Your task to perform on an android device: turn on the 12-hour format for clock Image 0: 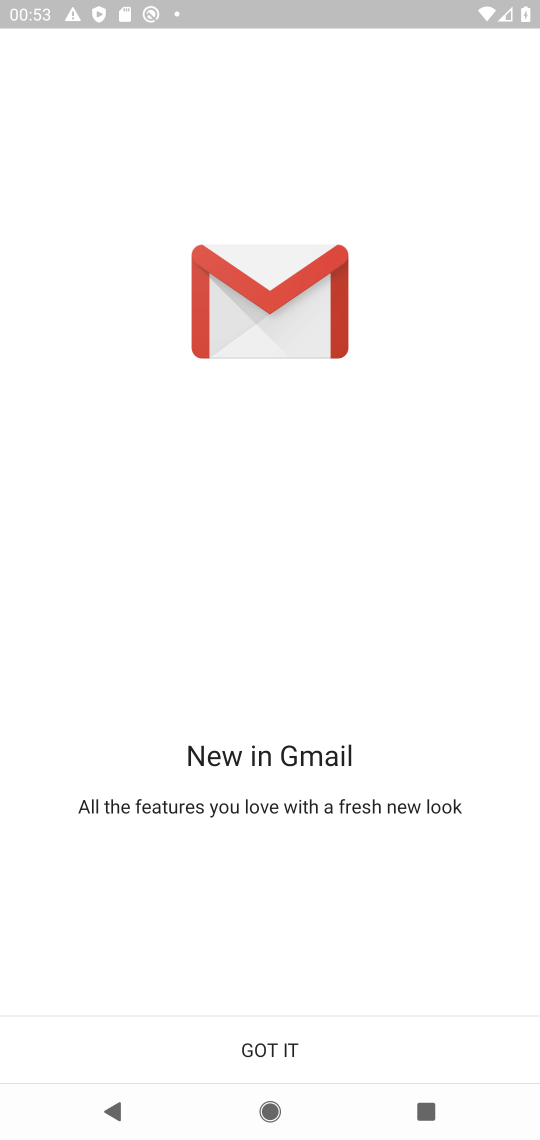
Step 0: press home button
Your task to perform on an android device: turn on the 12-hour format for clock Image 1: 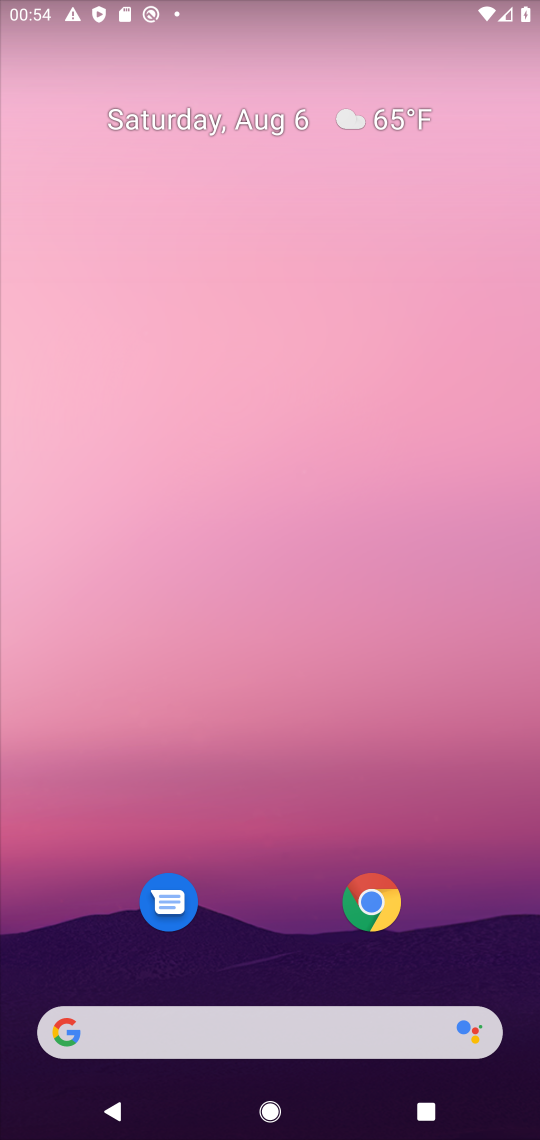
Step 1: drag from (284, 149) to (284, 95)
Your task to perform on an android device: turn on the 12-hour format for clock Image 2: 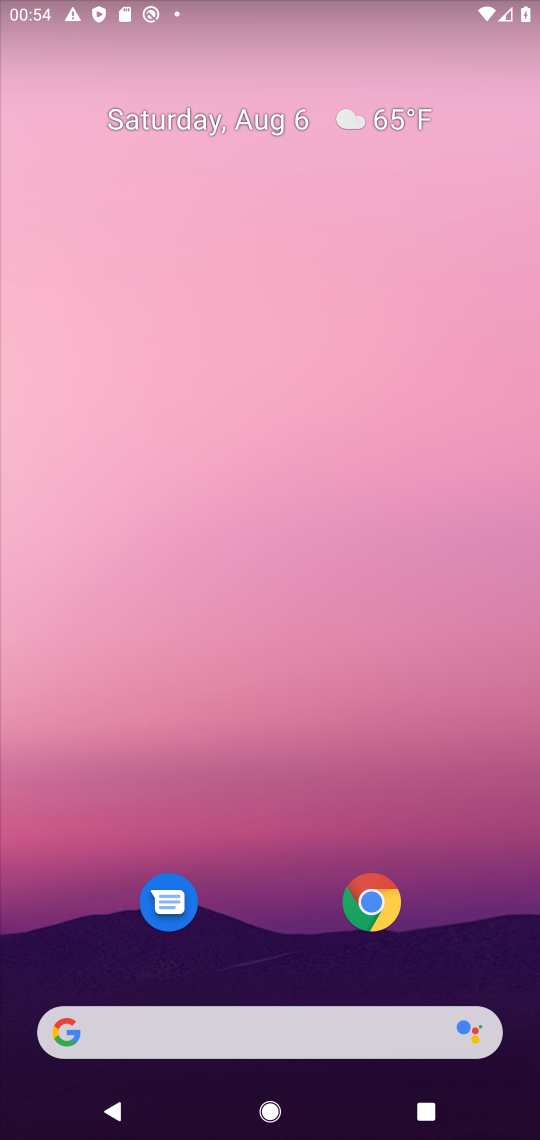
Step 2: drag from (302, 532) to (335, 171)
Your task to perform on an android device: turn on the 12-hour format for clock Image 3: 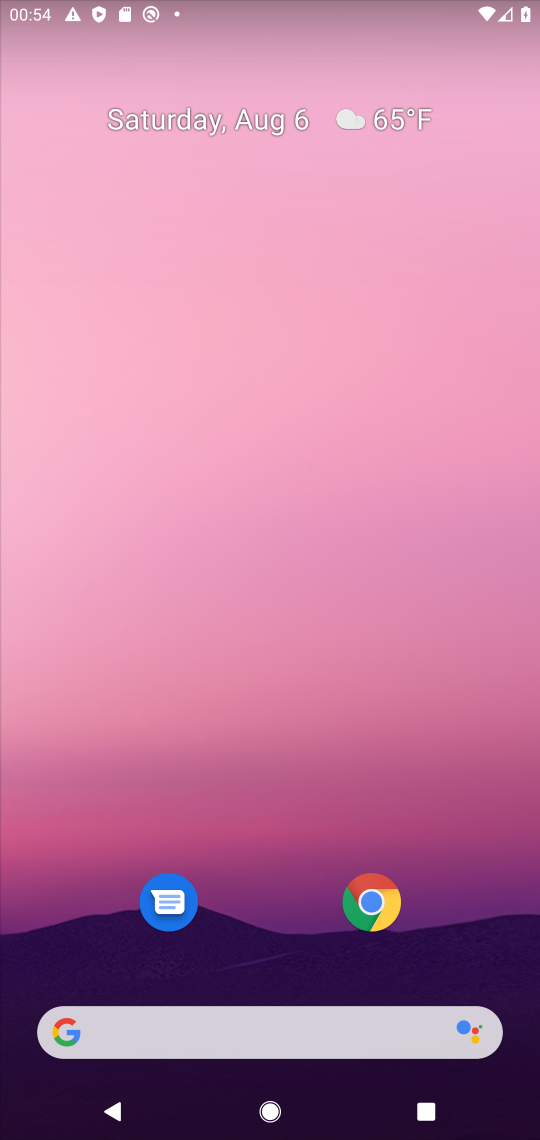
Step 3: drag from (275, 895) to (277, 187)
Your task to perform on an android device: turn on the 12-hour format for clock Image 4: 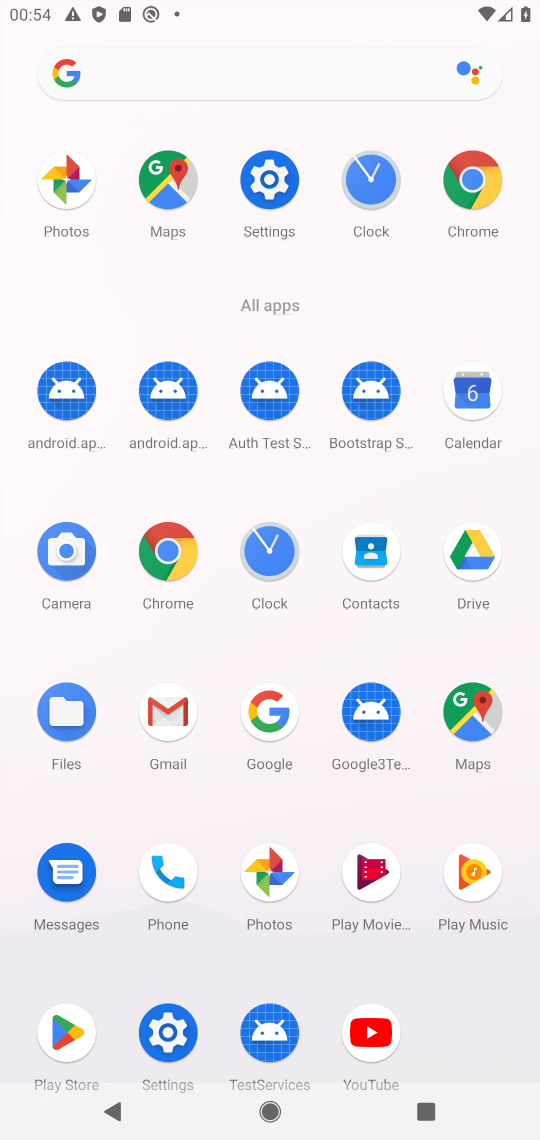
Step 4: click (375, 177)
Your task to perform on an android device: turn on the 12-hour format for clock Image 5: 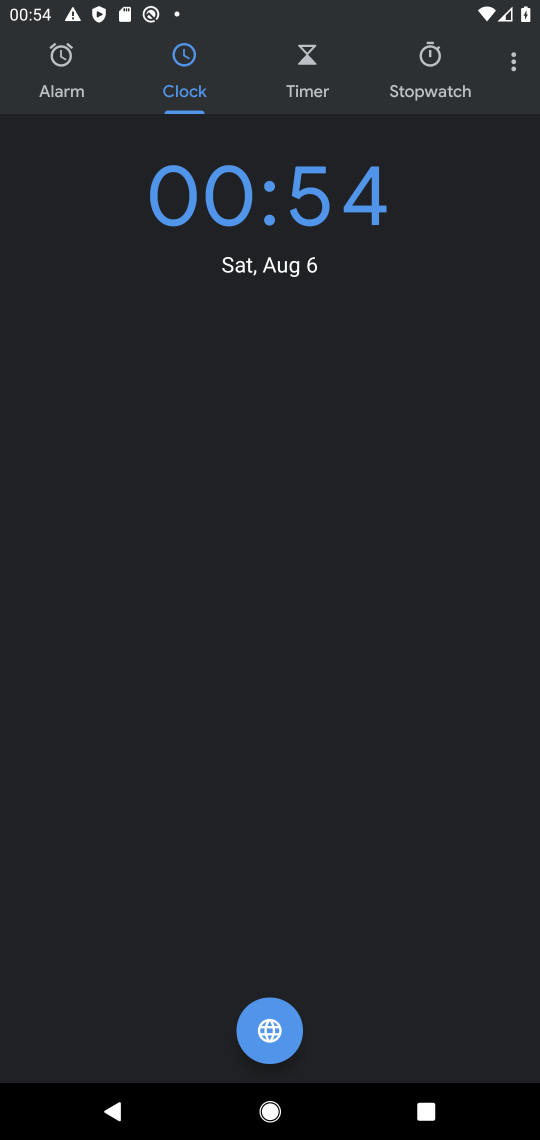
Step 5: click (508, 53)
Your task to perform on an android device: turn on the 12-hour format for clock Image 6: 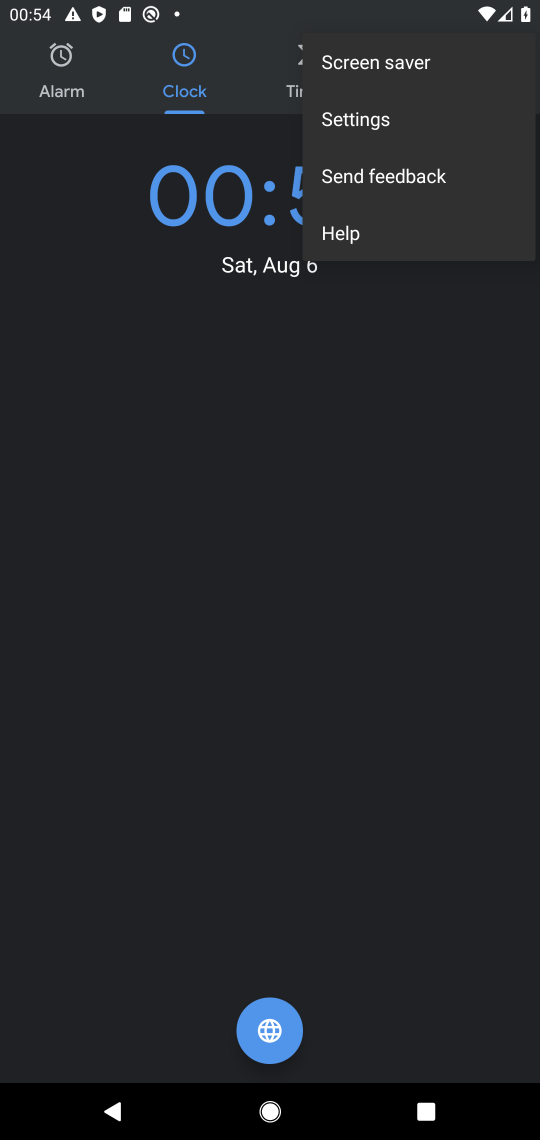
Step 6: click (362, 105)
Your task to perform on an android device: turn on the 12-hour format for clock Image 7: 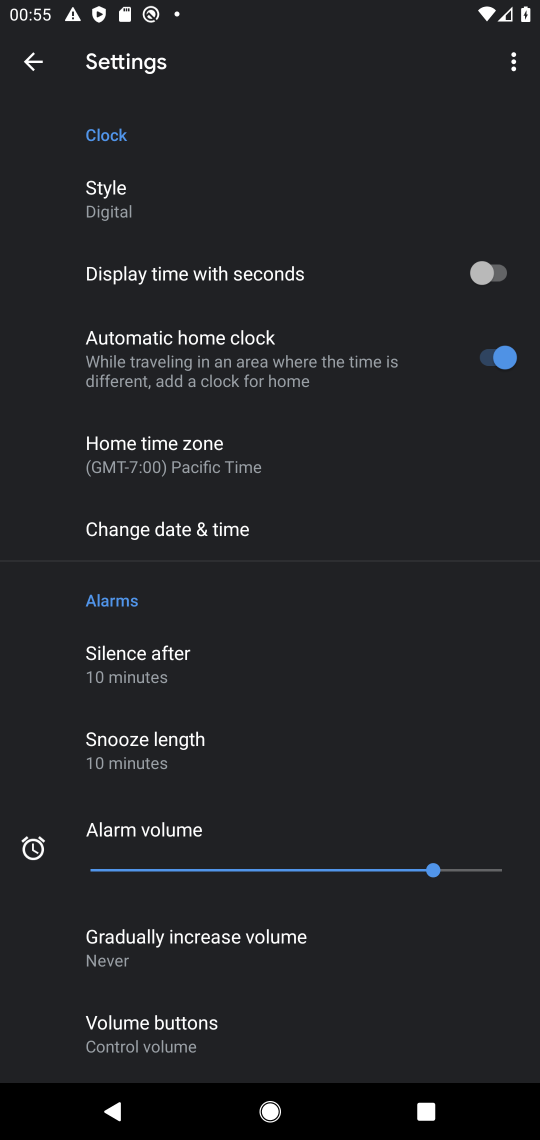
Step 7: click (155, 520)
Your task to perform on an android device: turn on the 12-hour format for clock Image 8: 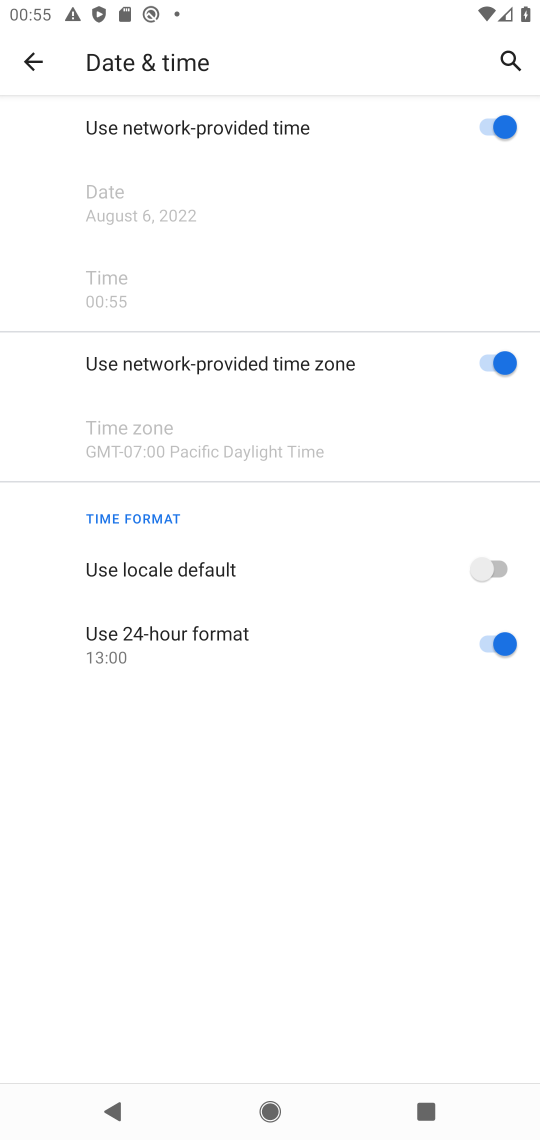
Step 8: click (489, 567)
Your task to perform on an android device: turn on the 12-hour format for clock Image 9: 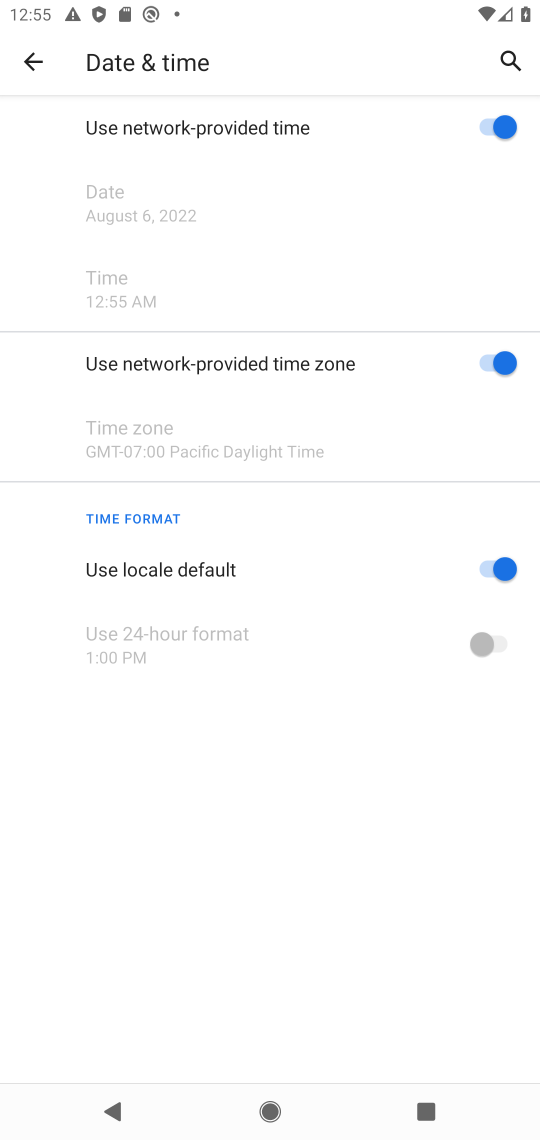
Step 9: task complete